Your task to perform on an android device: change the clock display to show seconds Image 0: 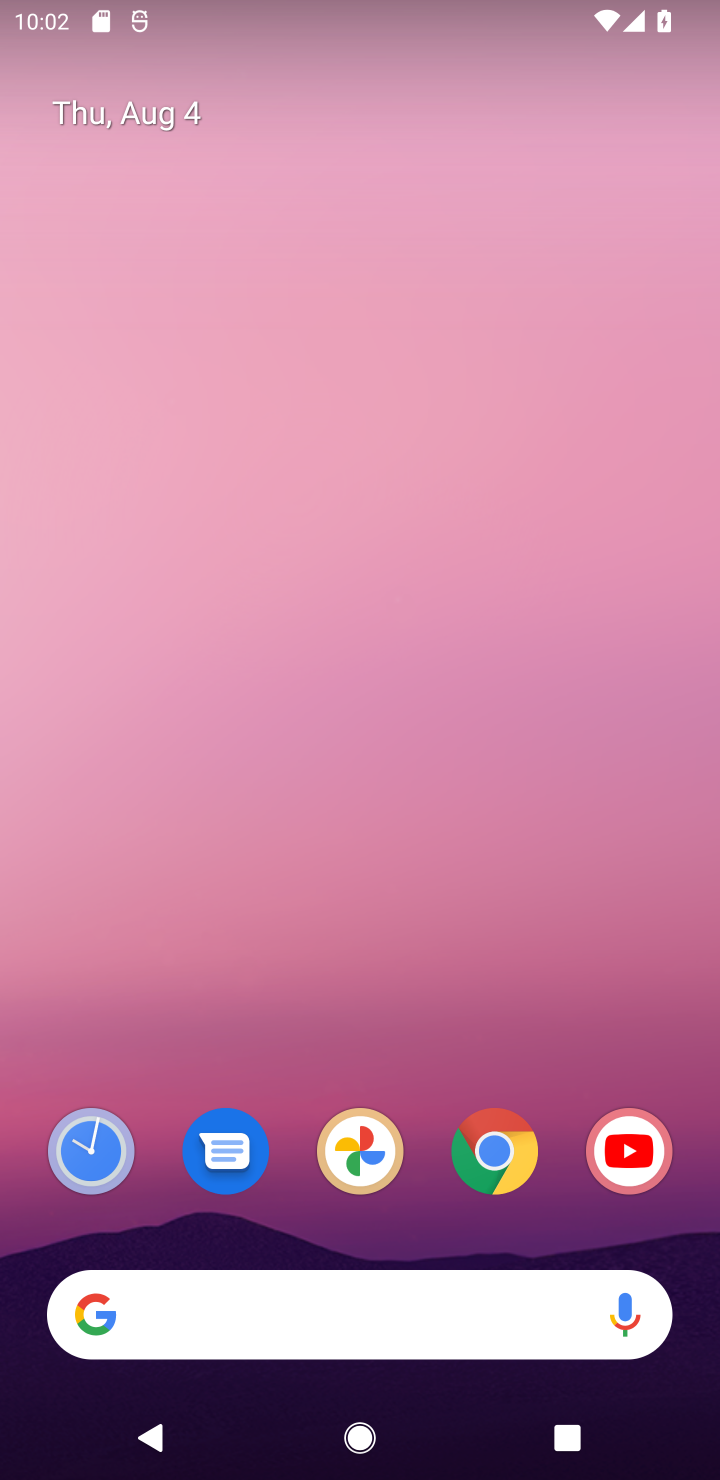
Step 0: press home button
Your task to perform on an android device: change the clock display to show seconds Image 1: 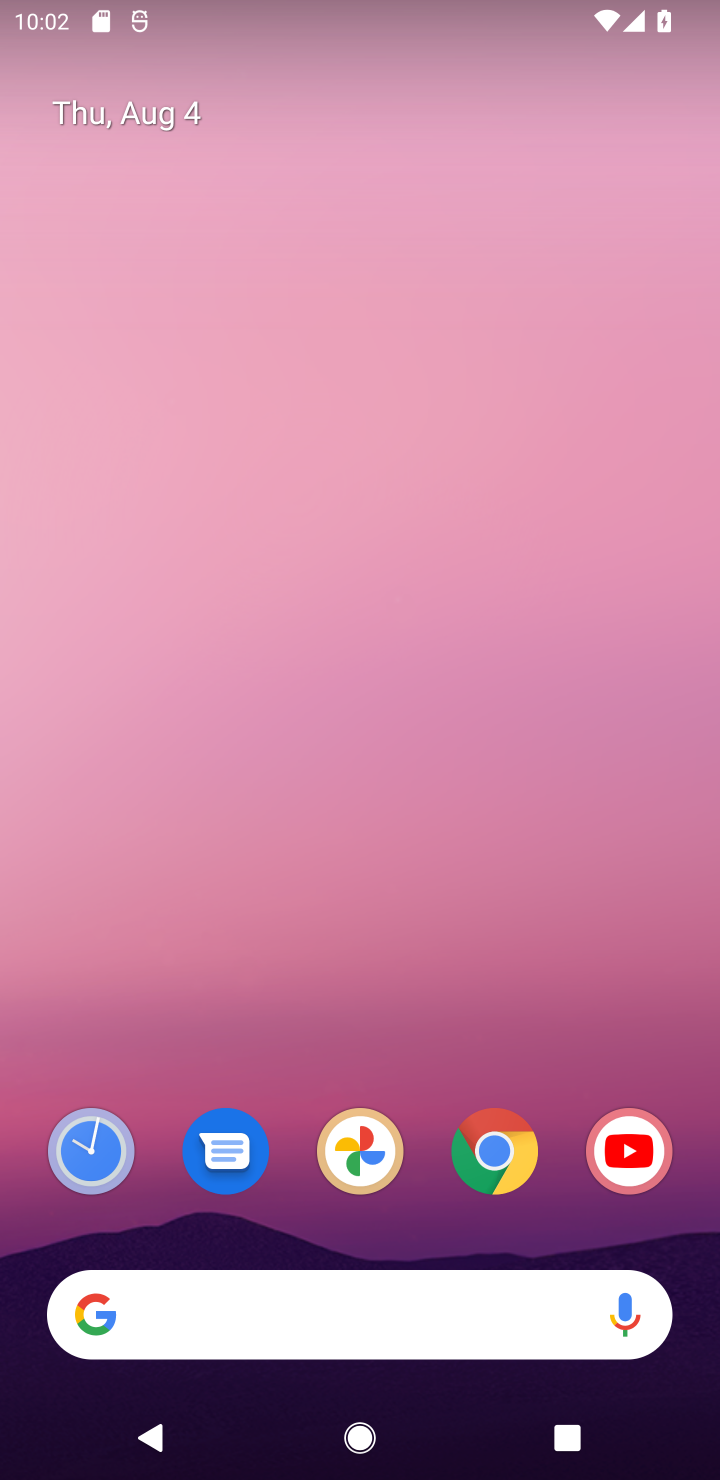
Step 1: drag from (450, 1223) to (469, 178)
Your task to perform on an android device: change the clock display to show seconds Image 2: 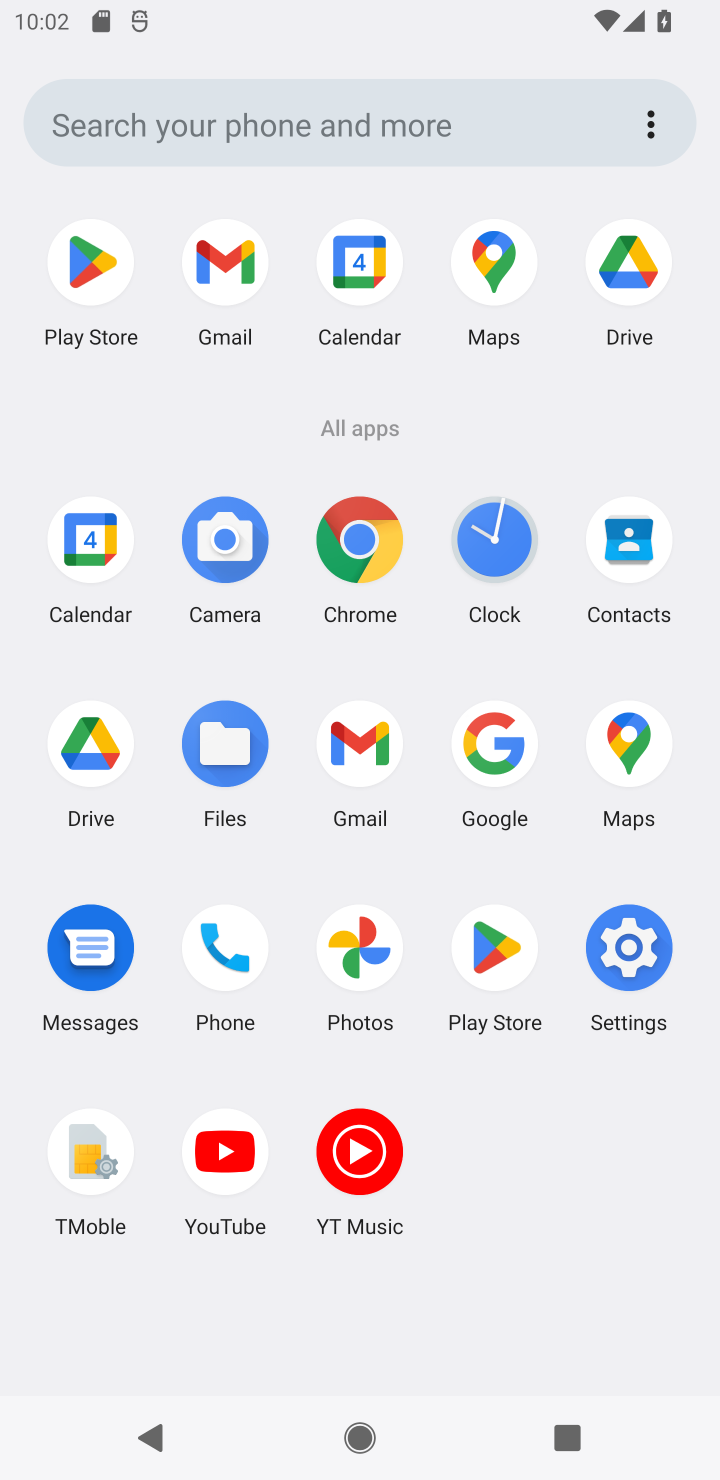
Step 2: click (493, 552)
Your task to perform on an android device: change the clock display to show seconds Image 3: 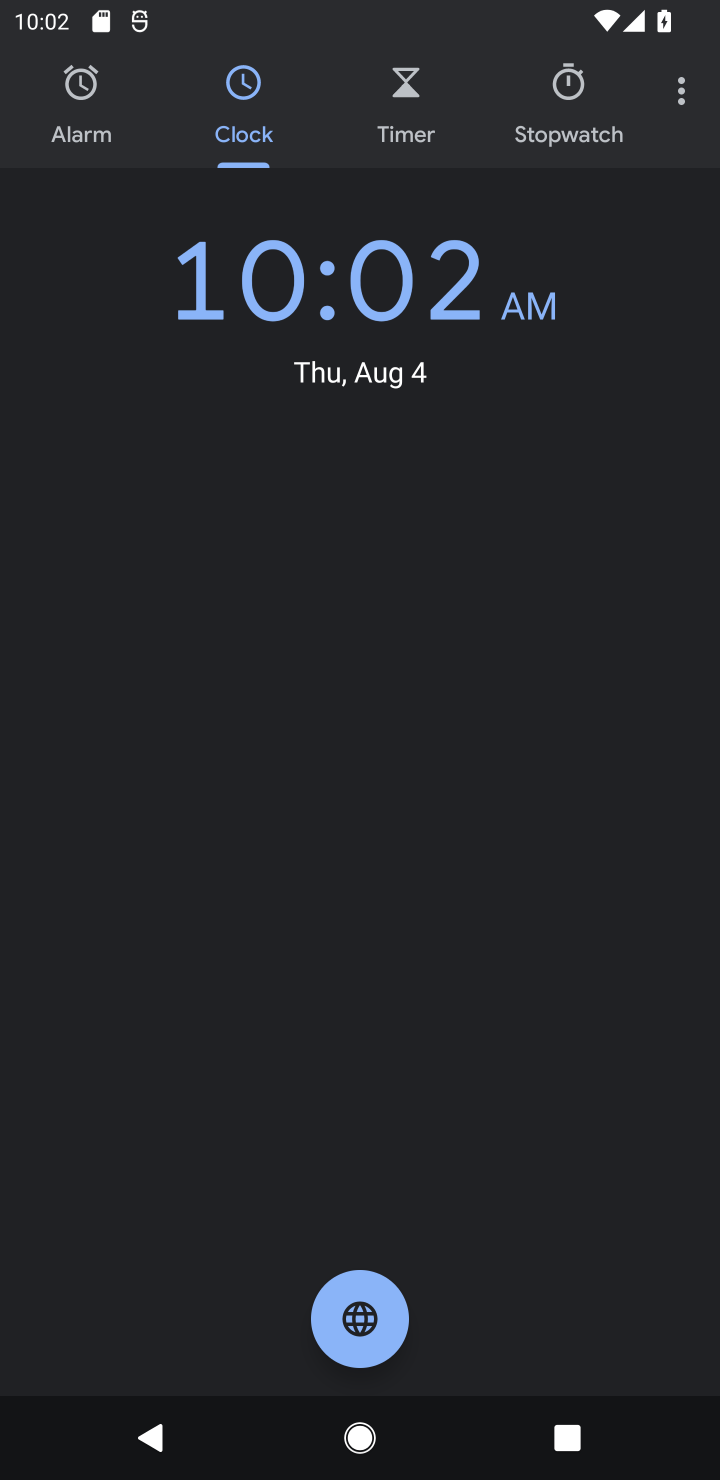
Step 3: click (688, 105)
Your task to perform on an android device: change the clock display to show seconds Image 4: 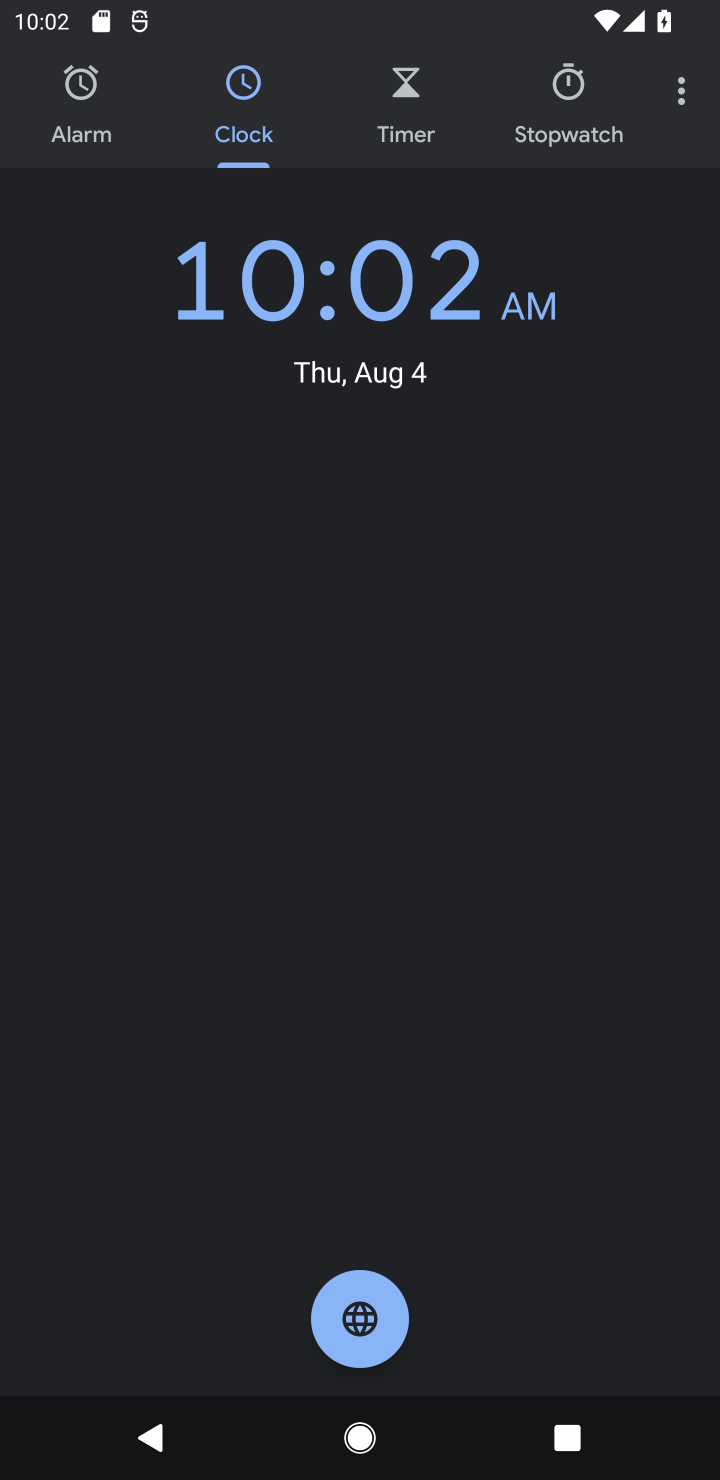
Step 4: click (673, 116)
Your task to perform on an android device: change the clock display to show seconds Image 5: 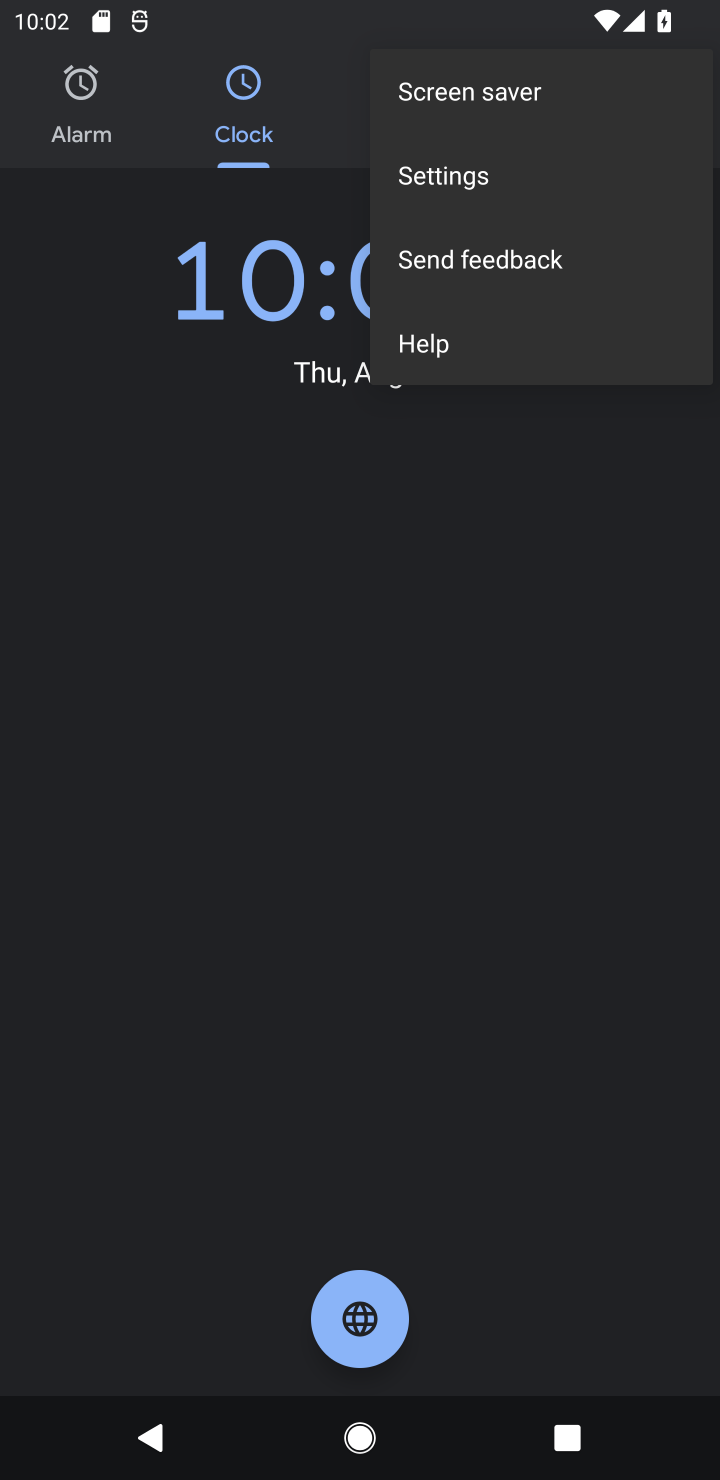
Step 5: click (431, 183)
Your task to perform on an android device: change the clock display to show seconds Image 6: 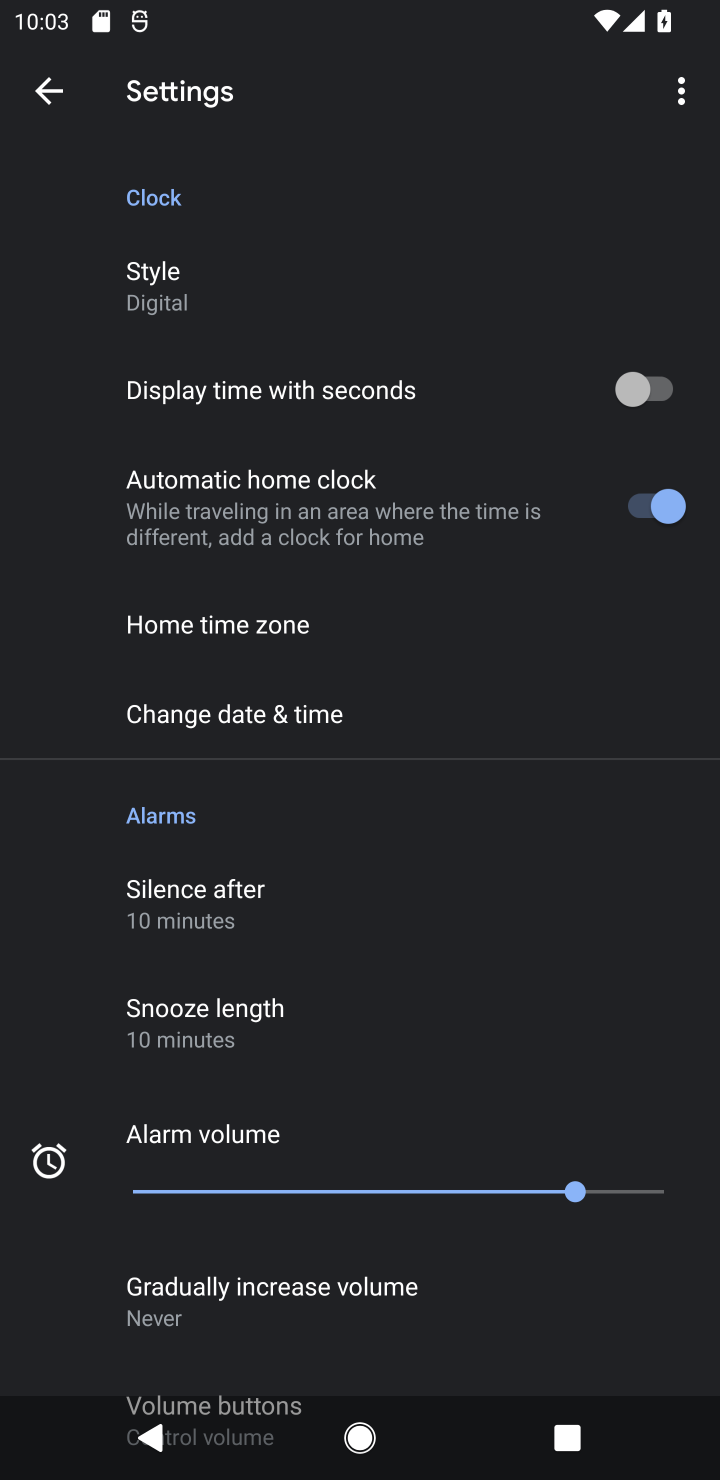
Step 6: click (642, 387)
Your task to perform on an android device: change the clock display to show seconds Image 7: 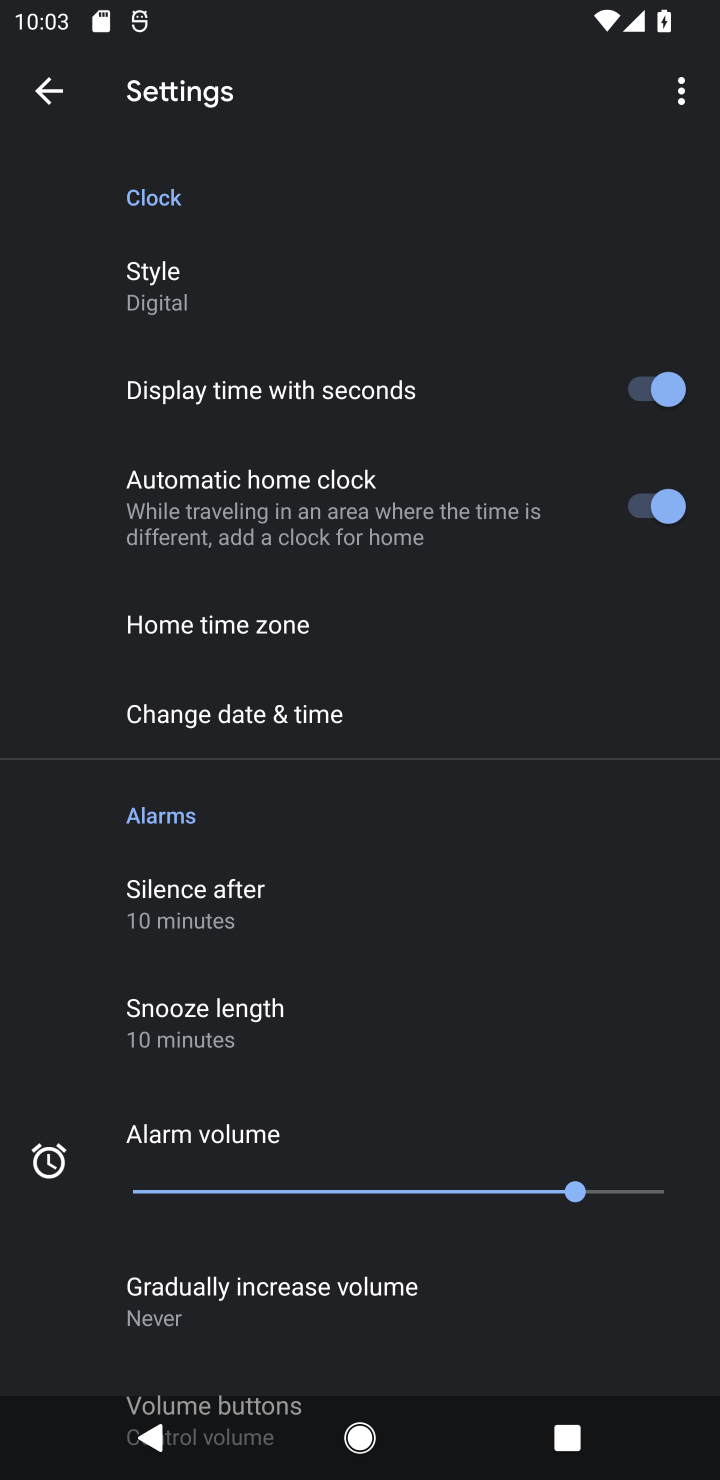
Step 7: task complete